Your task to perform on an android device: Go to accessibility settings Image 0: 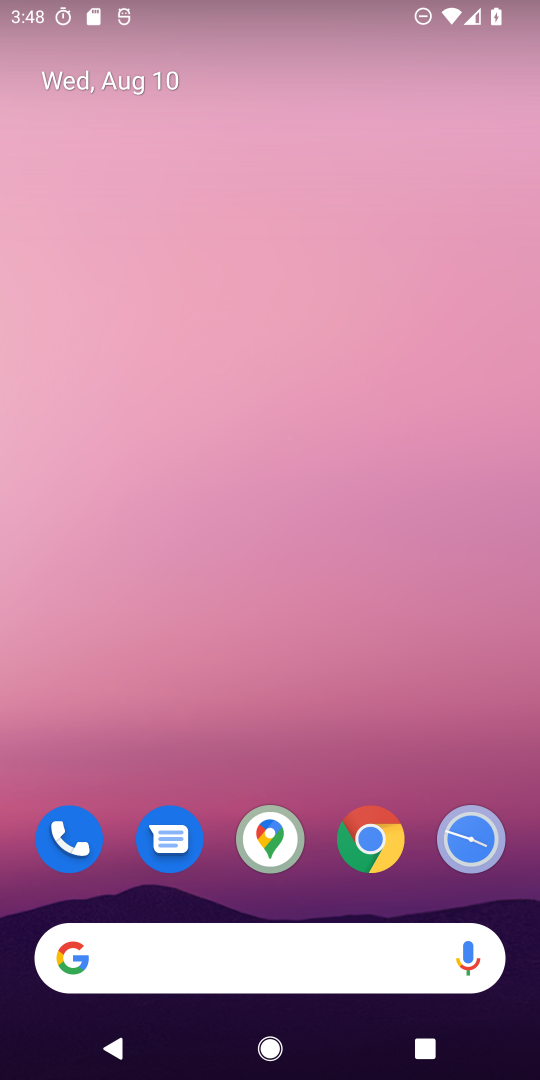
Step 0: drag from (29, 1006) to (348, 283)
Your task to perform on an android device: Go to accessibility settings Image 1: 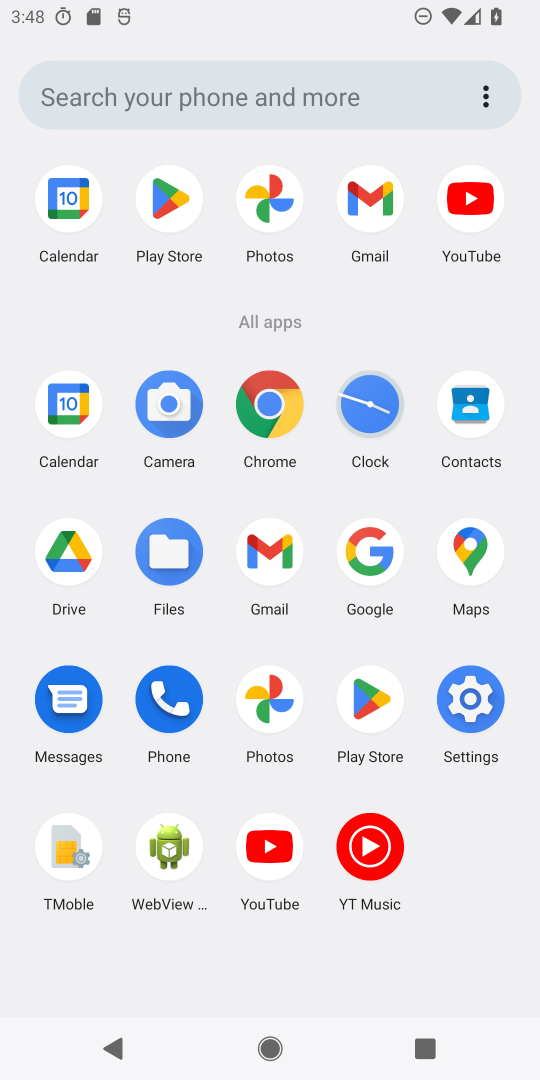
Step 1: click (484, 701)
Your task to perform on an android device: Go to accessibility settings Image 2: 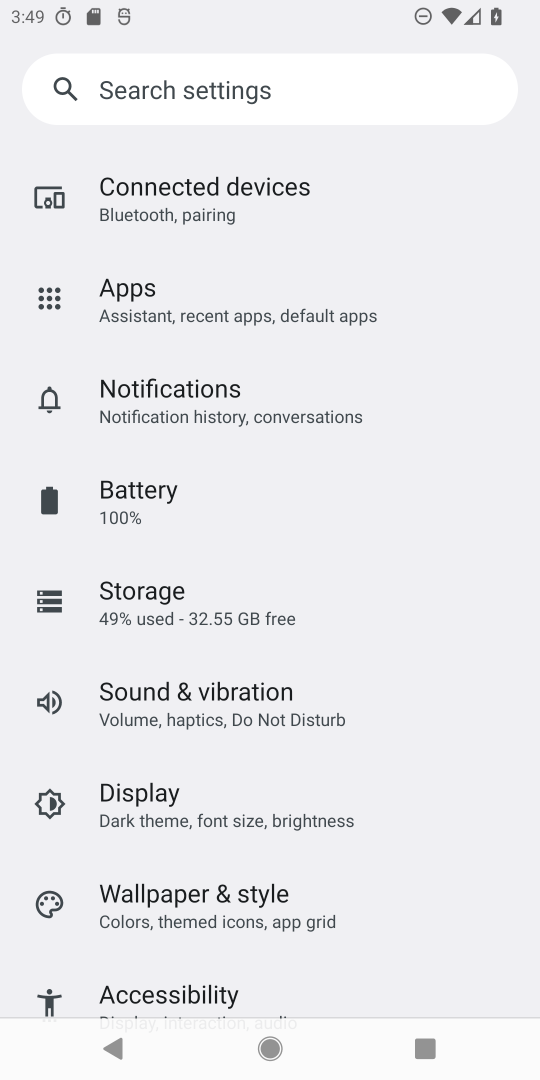
Step 2: drag from (411, 974) to (439, 707)
Your task to perform on an android device: Go to accessibility settings Image 3: 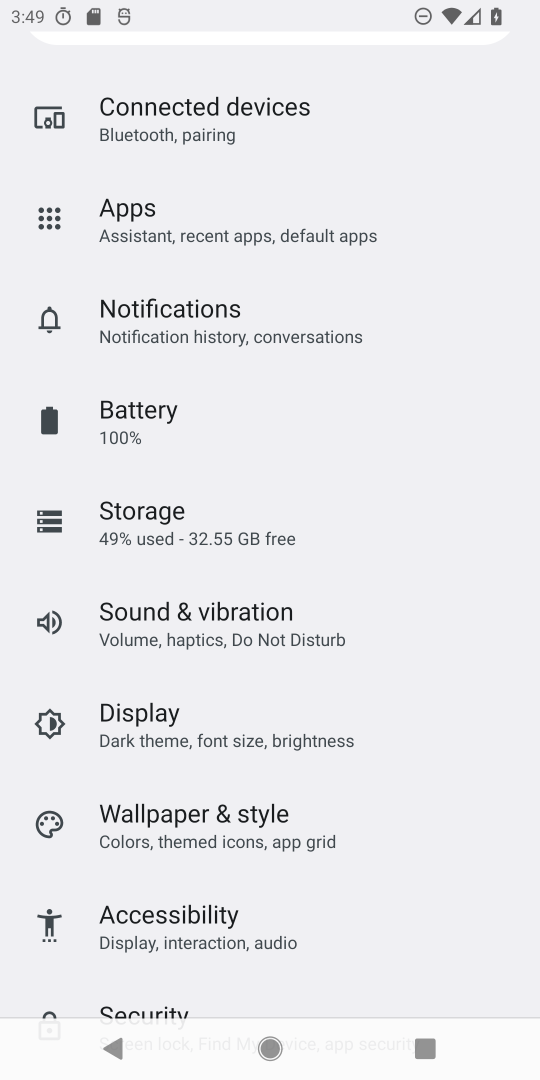
Step 3: click (177, 915)
Your task to perform on an android device: Go to accessibility settings Image 4: 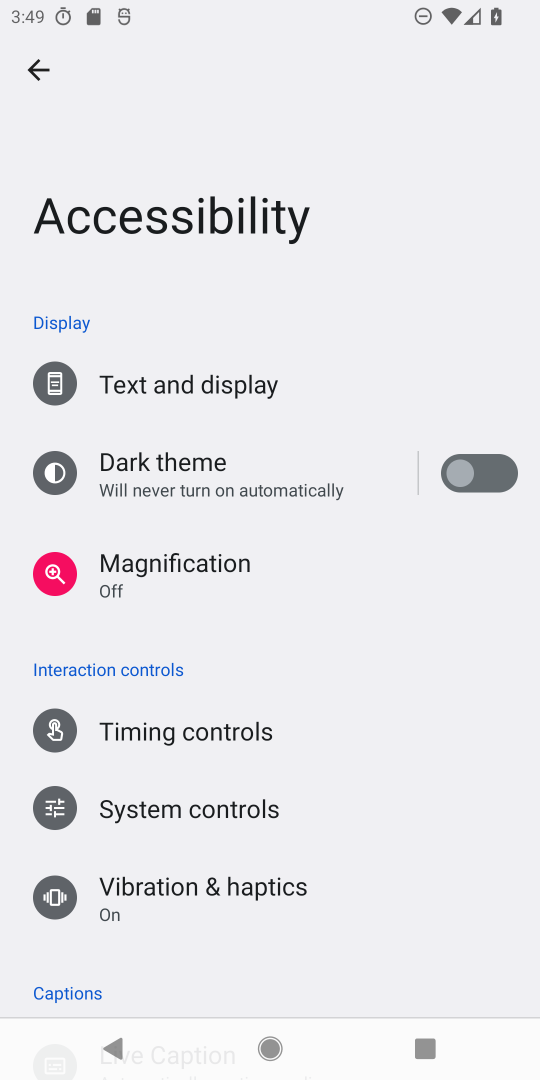
Step 4: task complete